Your task to perform on an android device: Open the calendar and show me this week's events? Image 0: 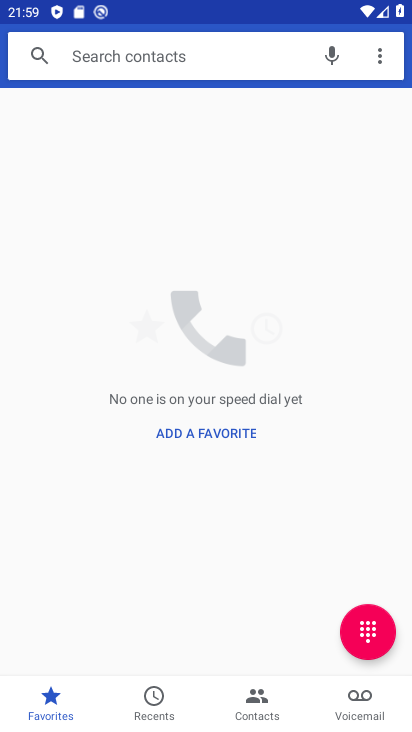
Step 0: press home button
Your task to perform on an android device: Open the calendar and show me this week's events? Image 1: 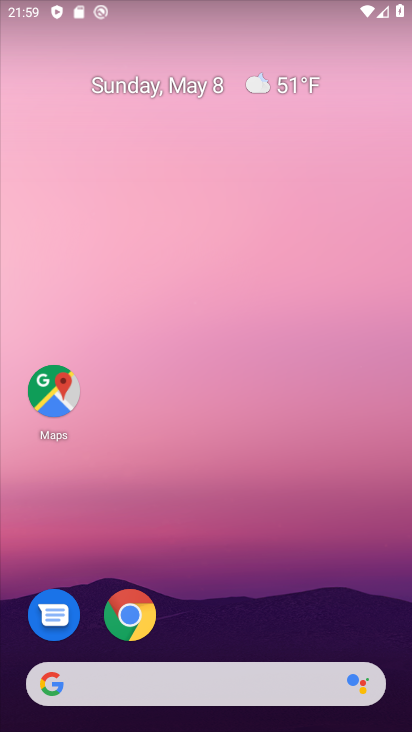
Step 1: drag from (309, 509) to (268, 114)
Your task to perform on an android device: Open the calendar and show me this week's events? Image 2: 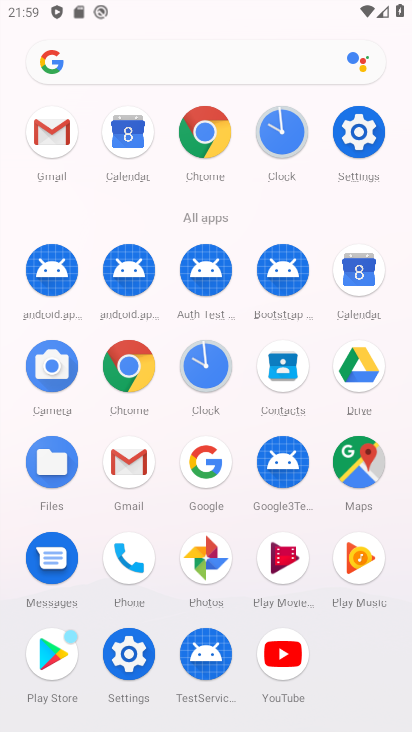
Step 2: click (366, 281)
Your task to perform on an android device: Open the calendar and show me this week's events? Image 3: 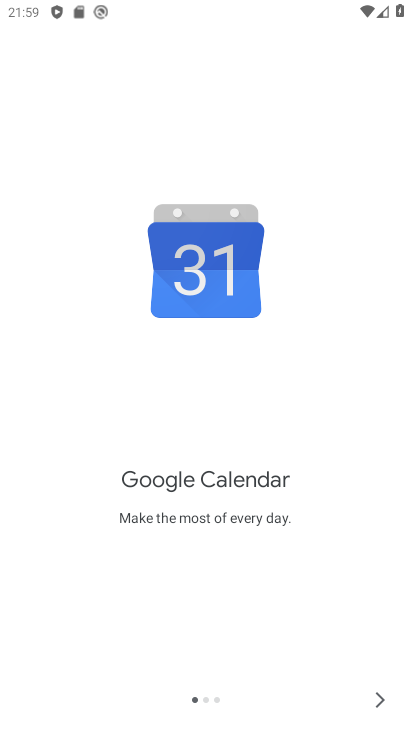
Step 3: click (381, 700)
Your task to perform on an android device: Open the calendar and show me this week's events? Image 4: 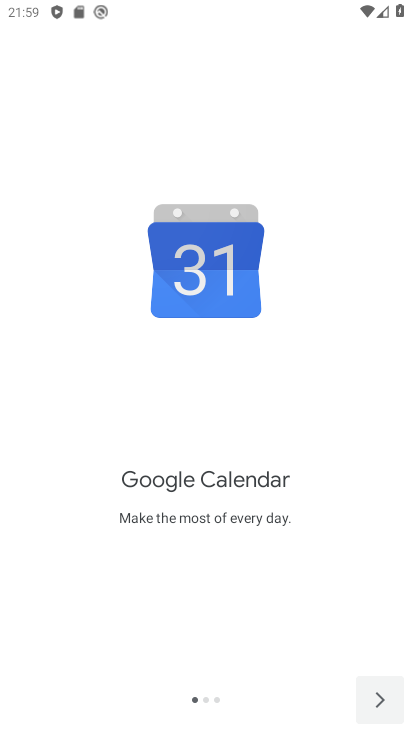
Step 4: click (381, 700)
Your task to perform on an android device: Open the calendar and show me this week's events? Image 5: 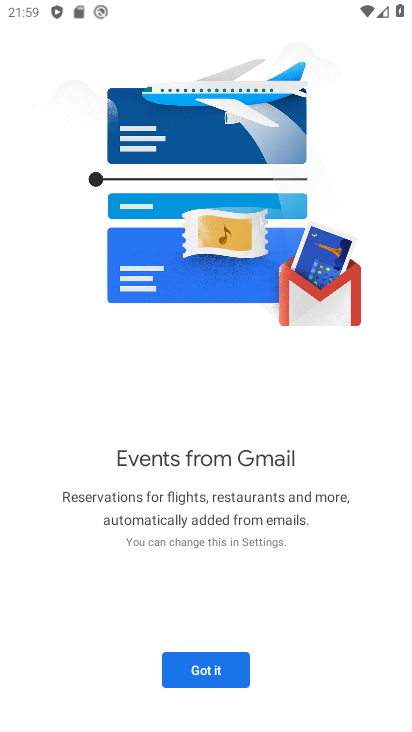
Step 5: click (380, 699)
Your task to perform on an android device: Open the calendar and show me this week's events? Image 6: 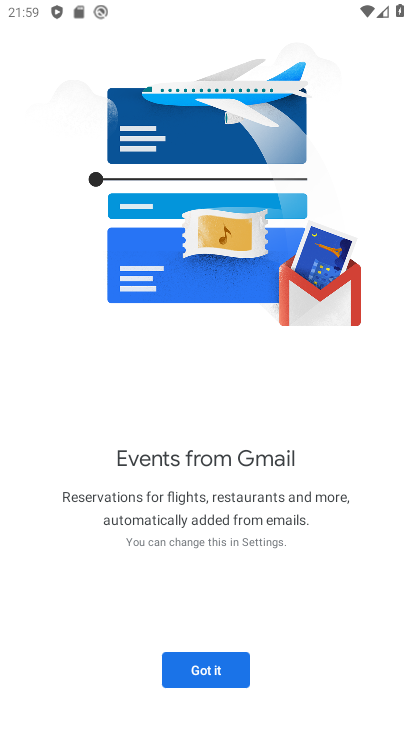
Step 6: click (211, 668)
Your task to perform on an android device: Open the calendar and show me this week's events? Image 7: 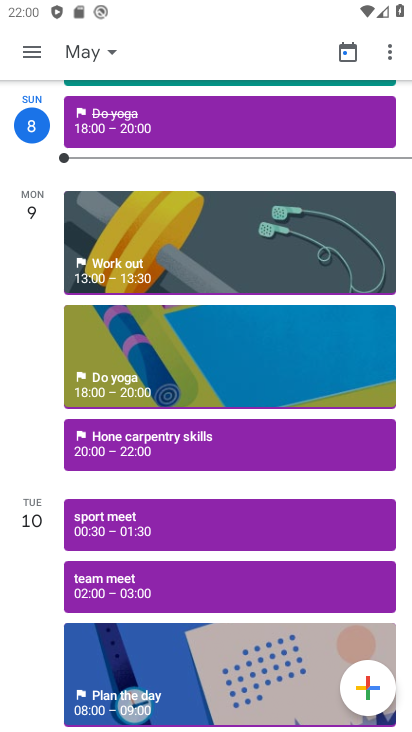
Step 7: click (32, 55)
Your task to perform on an android device: Open the calendar and show me this week's events? Image 8: 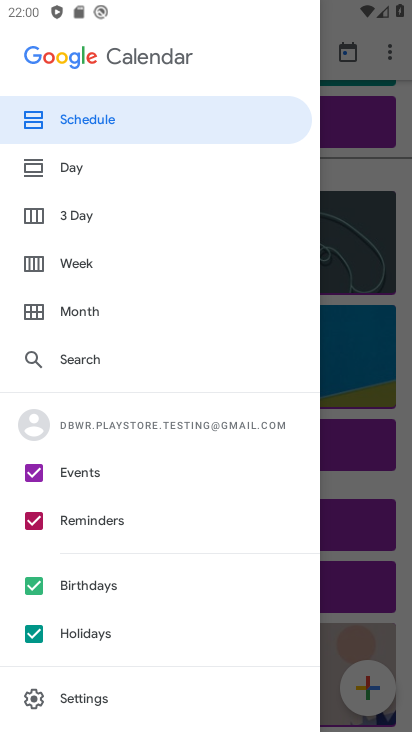
Step 8: click (87, 263)
Your task to perform on an android device: Open the calendar and show me this week's events? Image 9: 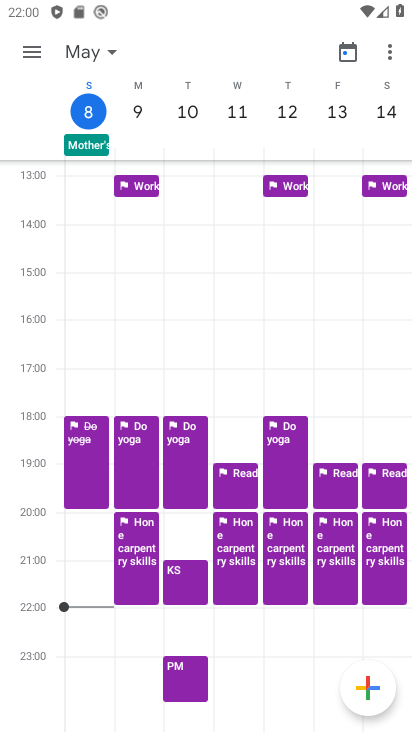
Step 9: task complete